Your task to perform on an android device: change the clock display to show seconds Image 0: 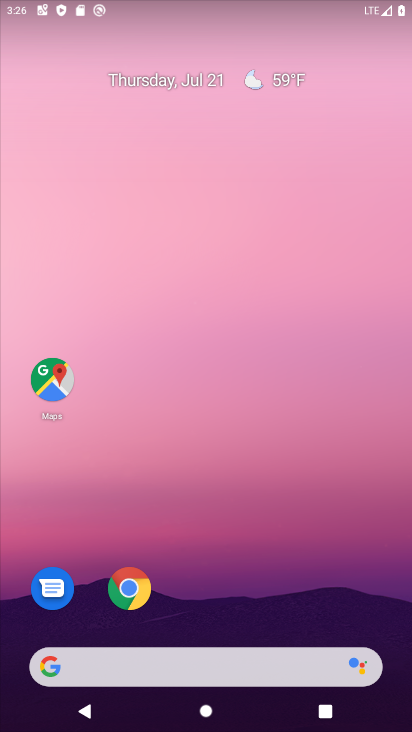
Step 0: drag from (224, 609) to (291, 132)
Your task to perform on an android device: change the clock display to show seconds Image 1: 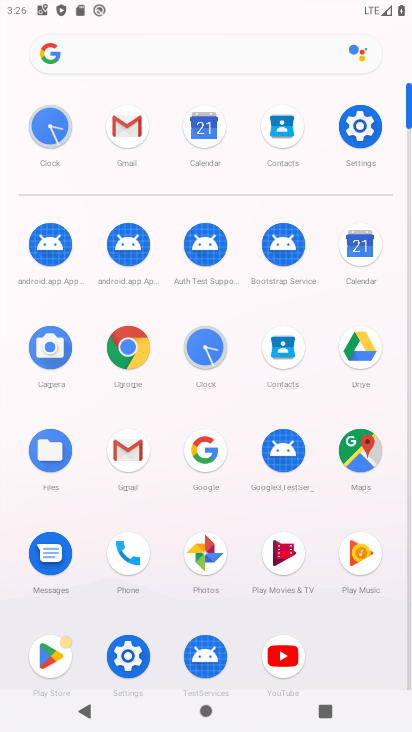
Step 1: click (211, 360)
Your task to perform on an android device: change the clock display to show seconds Image 2: 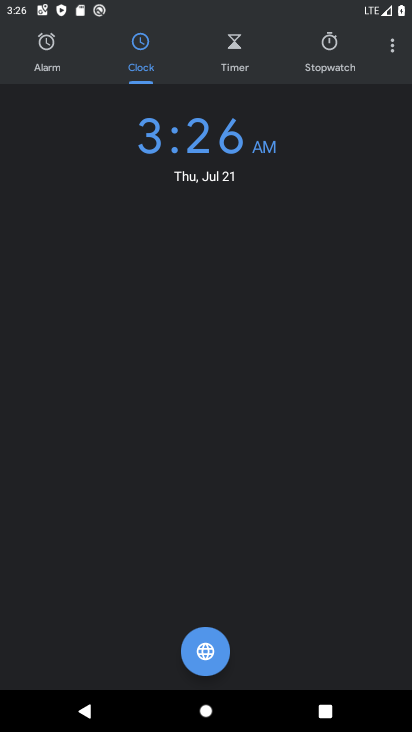
Step 2: click (378, 47)
Your task to perform on an android device: change the clock display to show seconds Image 3: 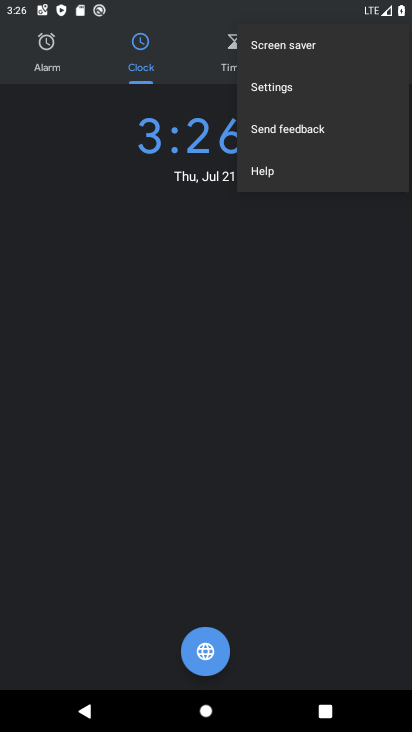
Step 3: click (313, 101)
Your task to perform on an android device: change the clock display to show seconds Image 4: 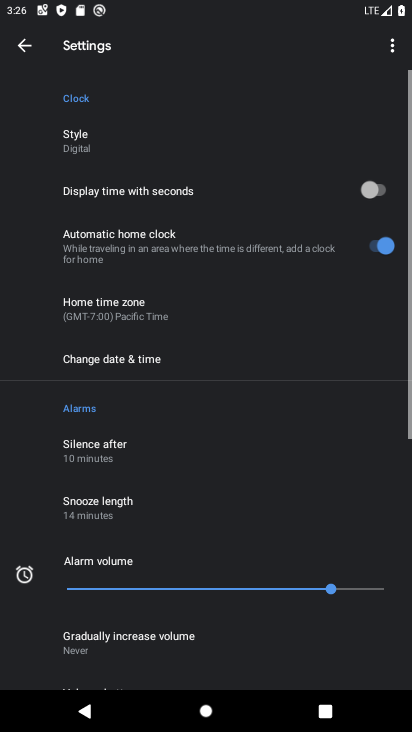
Step 4: click (380, 183)
Your task to perform on an android device: change the clock display to show seconds Image 5: 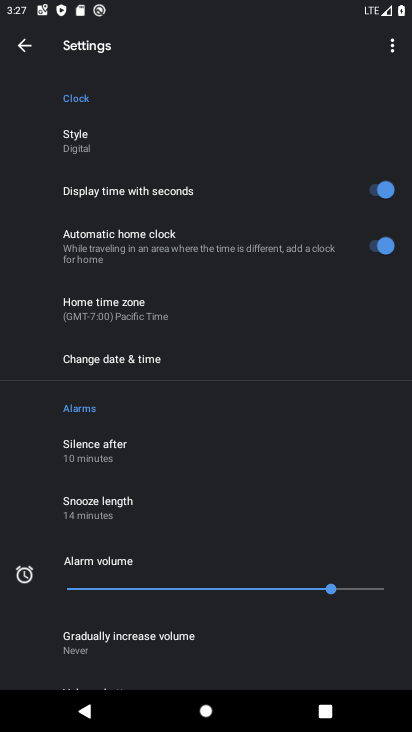
Step 5: task complete